Your task to perform on an android device: Open settings on Google Maps Image 0: 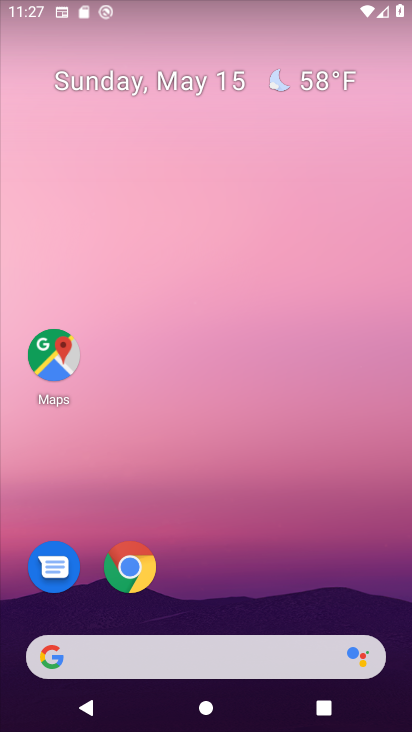
Step 0: click (62, 347)
Your task to perform on an android device: Open settings on Google Maps Image 1: 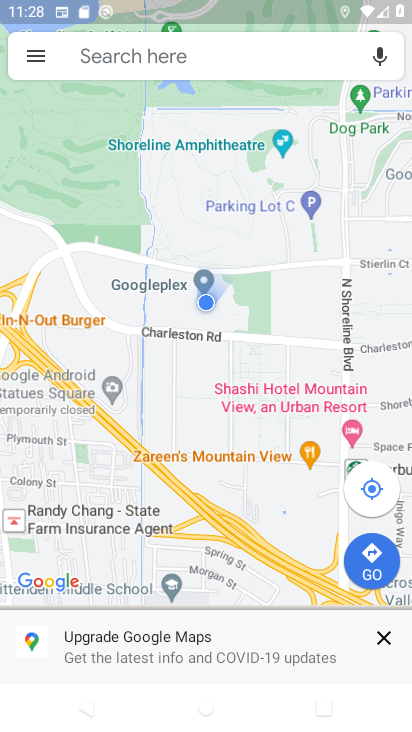
Step 1: click (45, 58)
Your task to perform on an android device: Open settings on Google Maps Image 2: 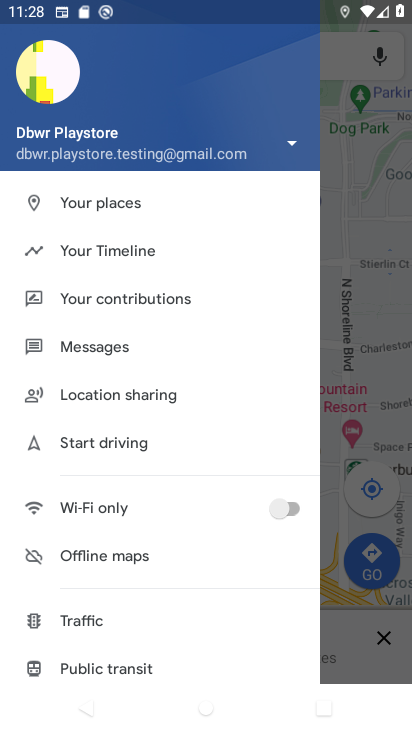
Step 2: drag from (130, 551) to (207, 189)
Your task to perform on an android device: Open settings on Google Maps Image 3: 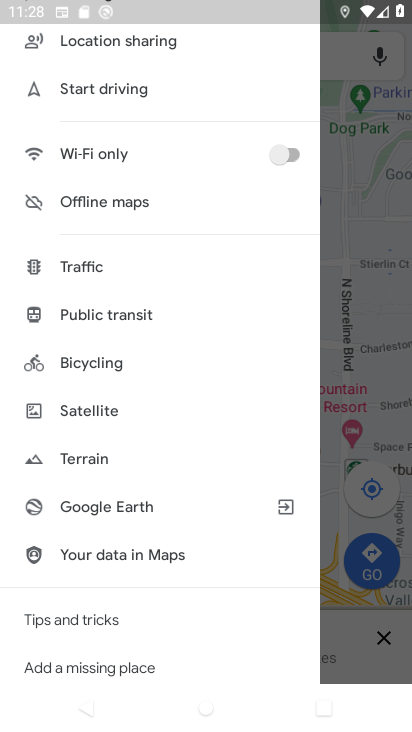
Step 3: drag from (219, 492) to (205, 257)
Your task to perform on an android device: Open settings on Google Maps Image 4: 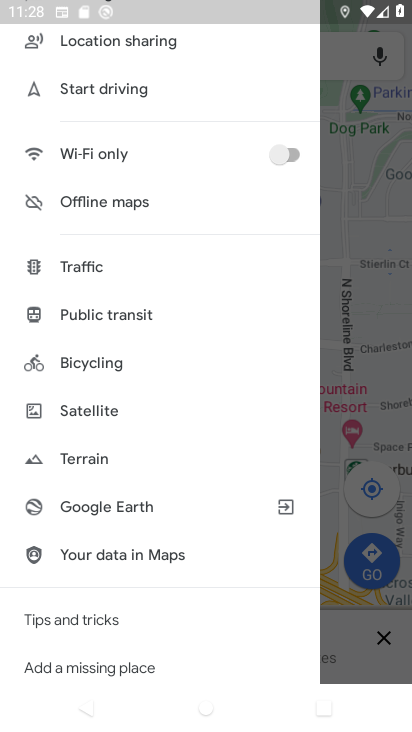
Step 4: drag from (205, 257) to (184, 623)
Your task to perform on an android device: Open settings on Google Maps Image 5: 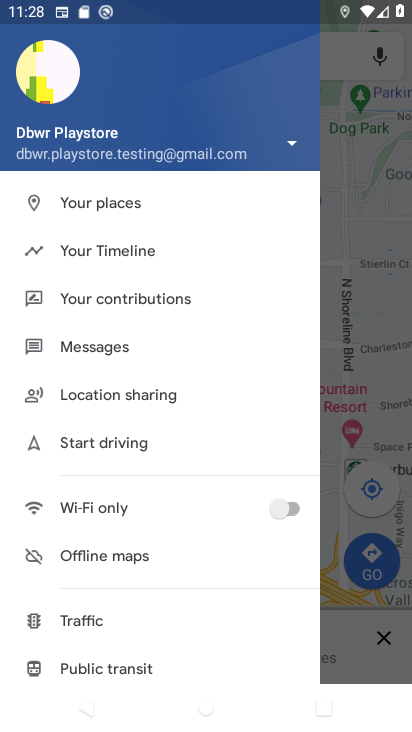
Step 5: drag from (184, 623) to (137, 316)
Your task to perform on an android device: Open settings on Google Maps Image 6: 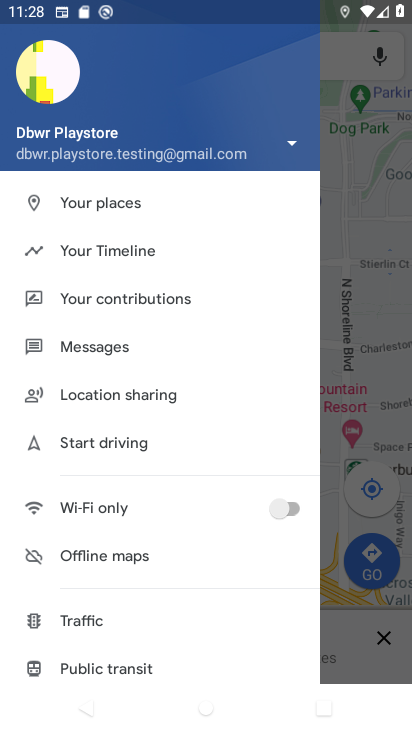
Step 6: drag from (130, 661) to (131, 274)
Your task to perform on an android device: Open settings on Google Maps Image 7: 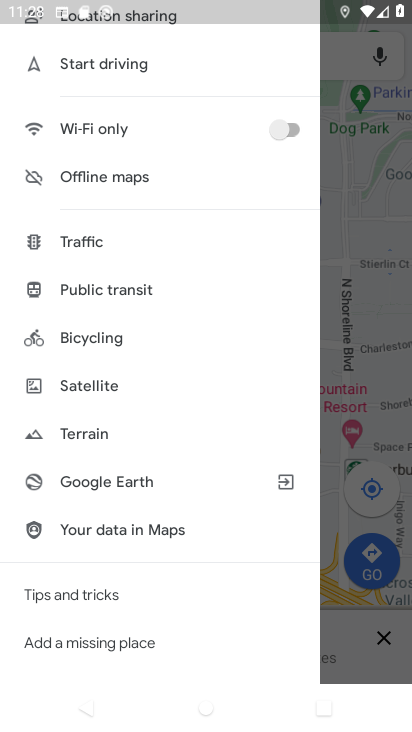
Step 7: drag from (145, 587) to (195, 168)
Your task to perform on an android device: Open settings on Google Maps Image 8: 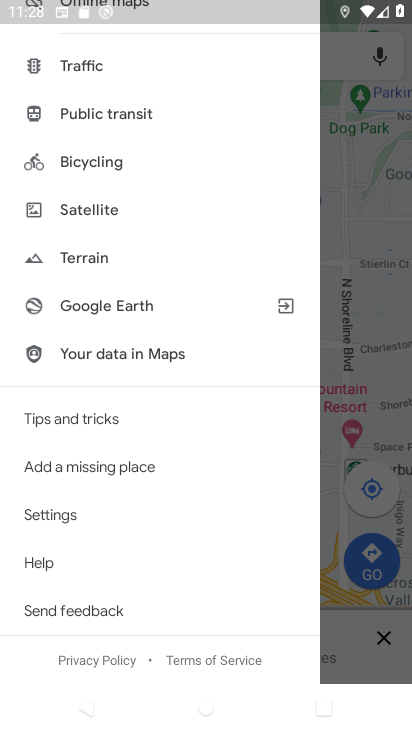
Step 8: click (83, 518)
Your task to perform on an android device: Open settings on Google Maps Image 9: 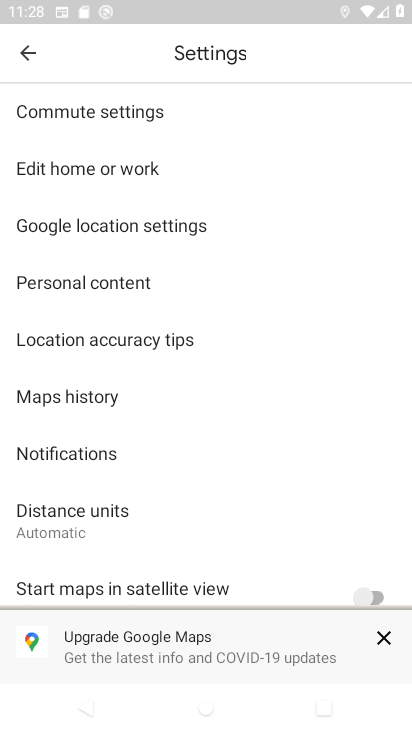
Step 9: task complete